Your task to perform on an android device: open a new tab in the chrome app Image 0: 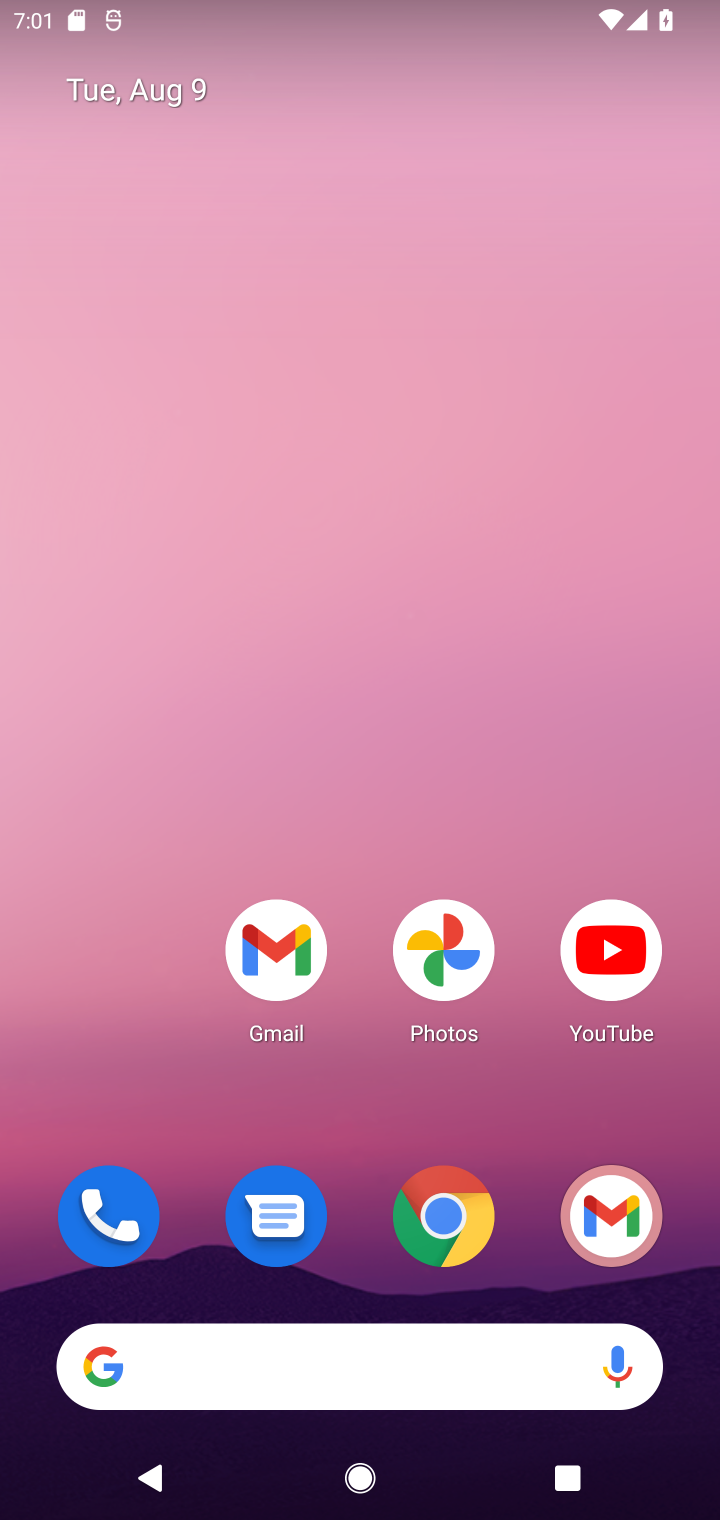
Step 0: click (447, 1216)
Your task to perform on an android device: open a new tab in the chrome app Image 1: 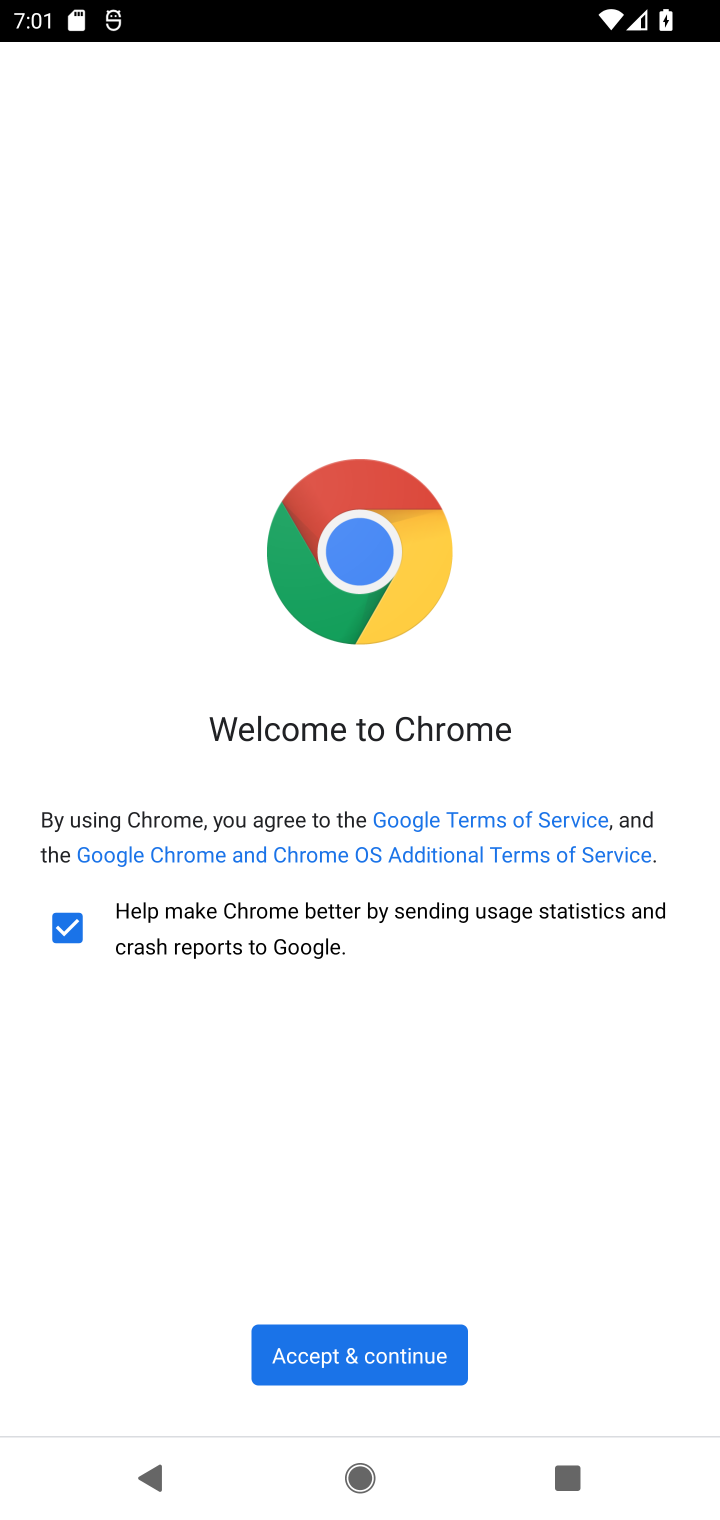
Step 1: click (362, 1338)
Your task to perform on an android device: open a new tab in the chrome app Image 2: 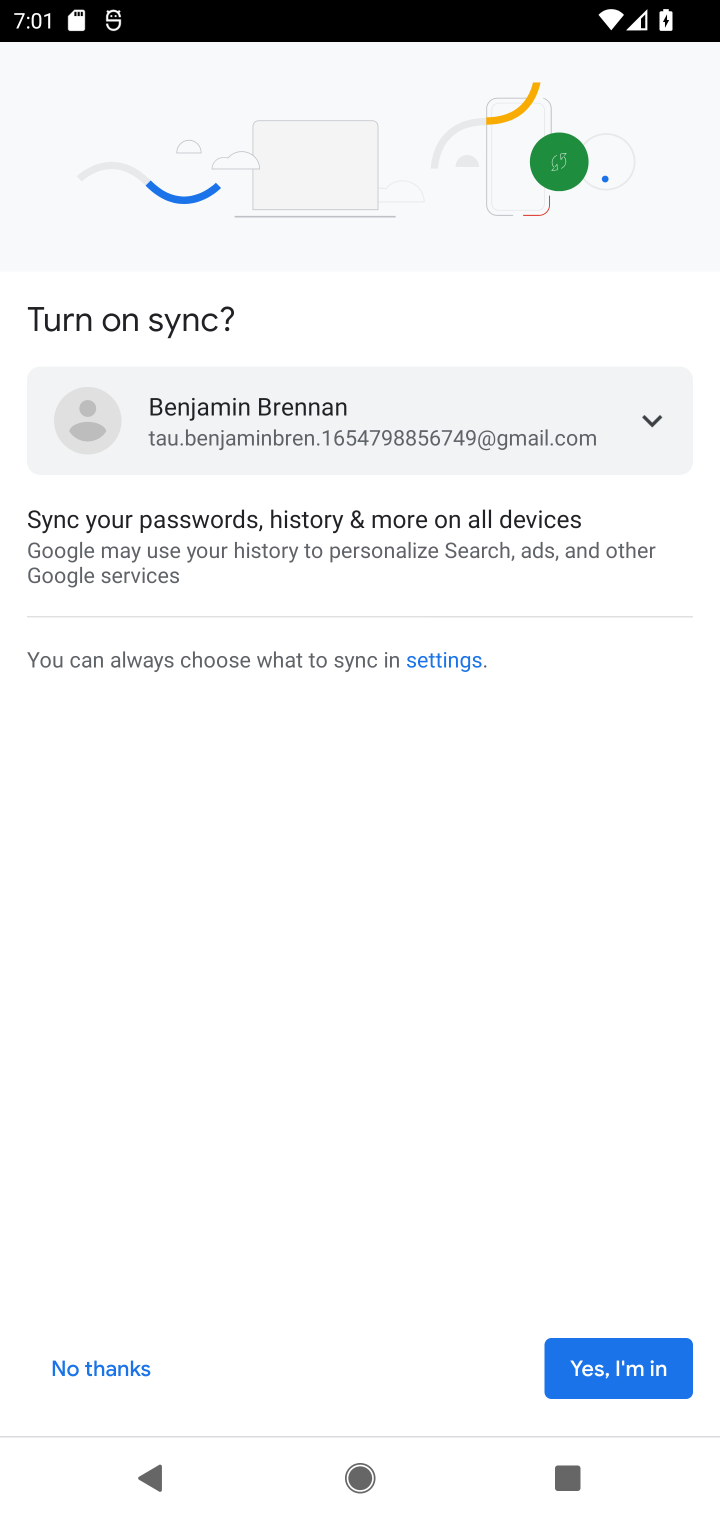
Step 2: click (622, 1364)
Your task to perform on an android device: open a new tab in the chrome app Image 3: 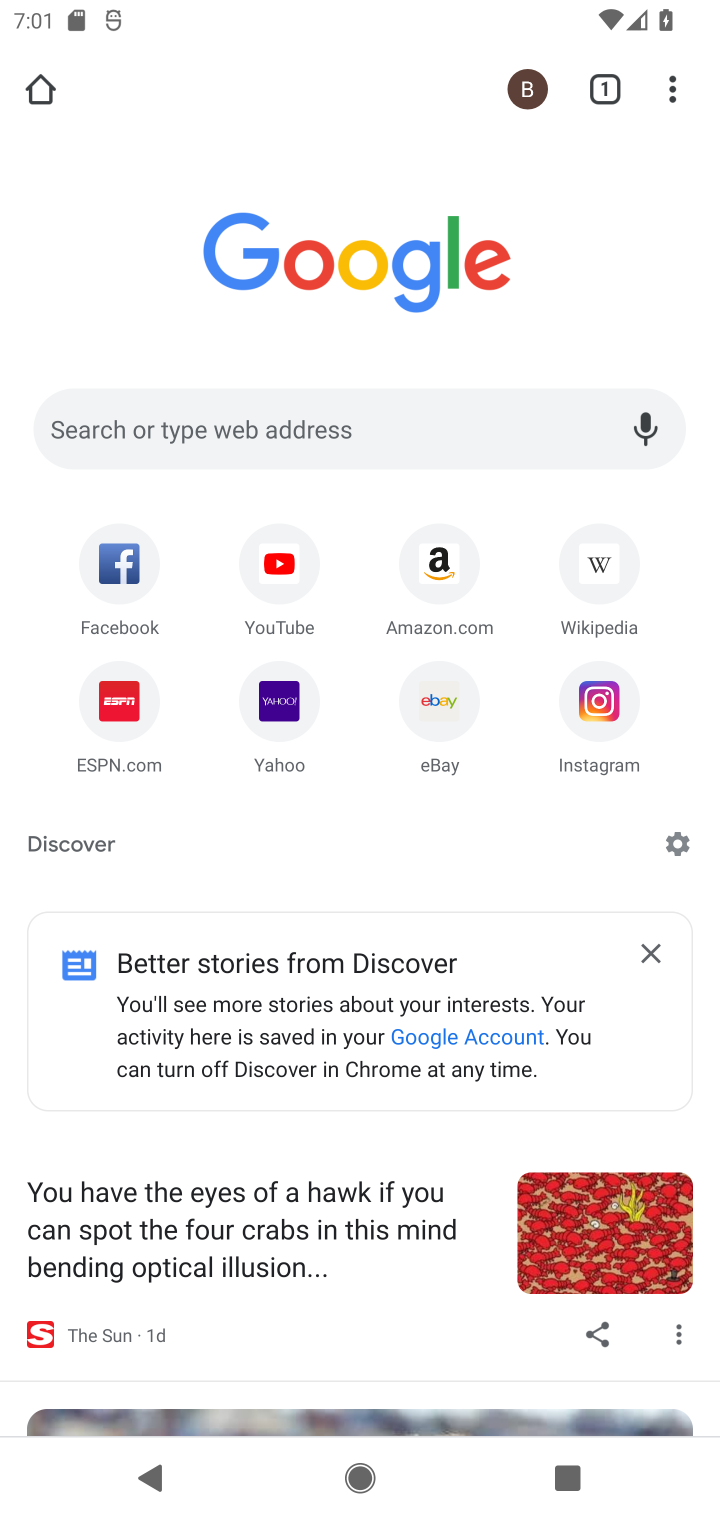
Step 3: click (662, 98)
Your task to perform on an android device: open a new tab in the chrome app Image 4: 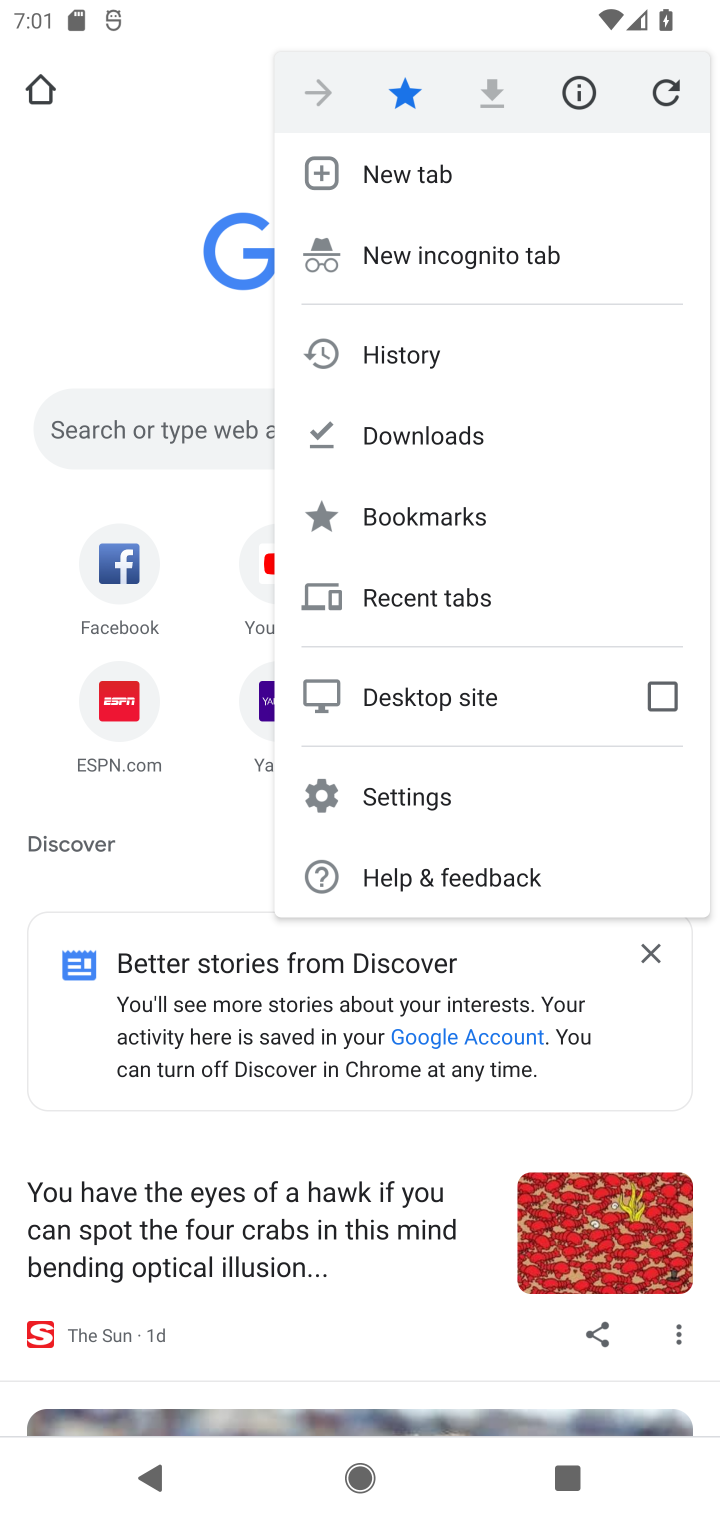
Step 4: click (423, 175)
Your task to perform on an android device: open a new tab in the chrome app Image 5: 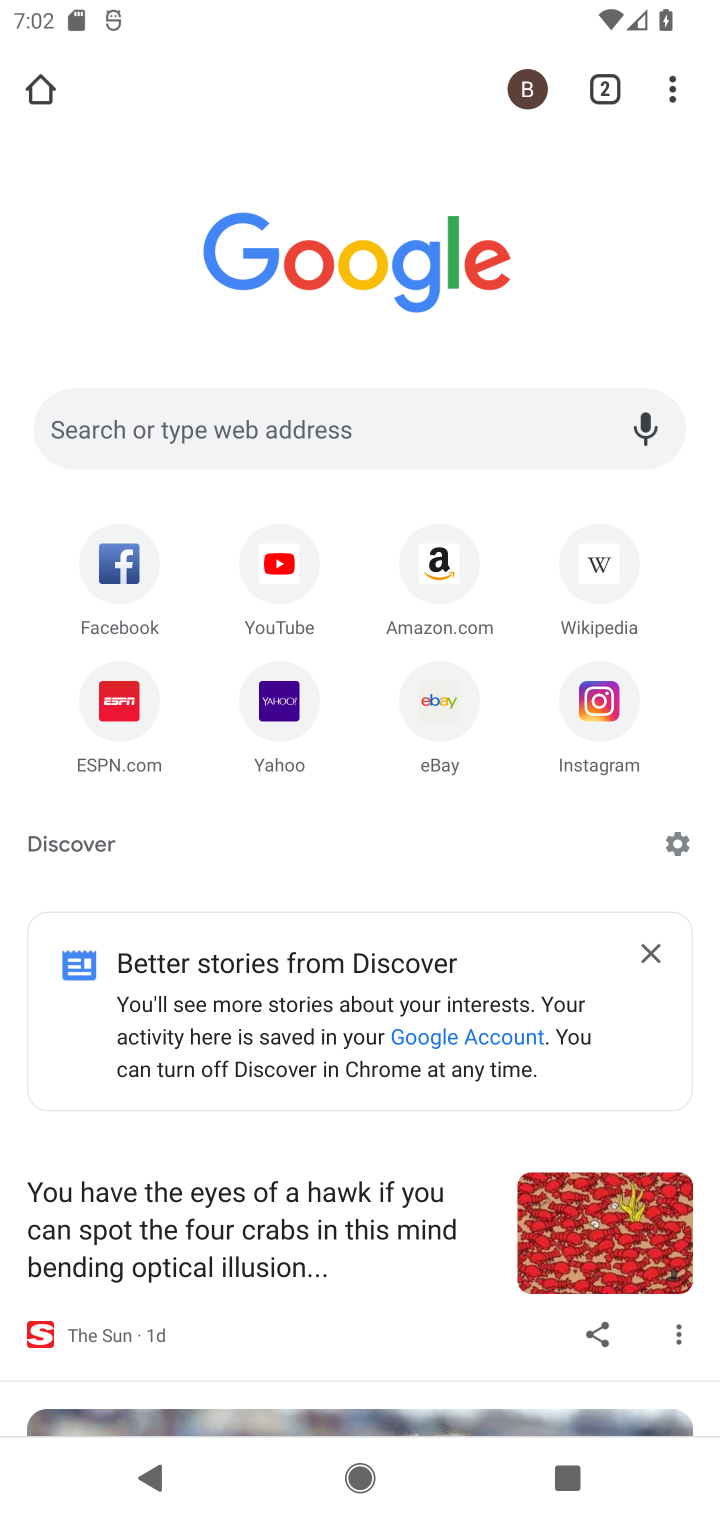
Step 5: task complete